Your task to perform on an android device: change alarm snooze length Image 0: 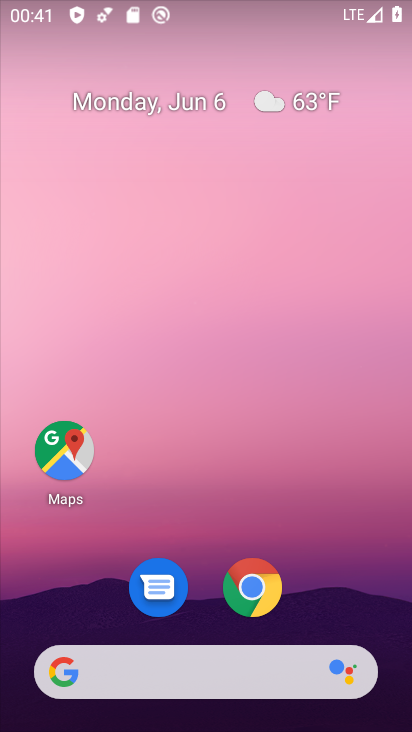
Step 0: drag from (344, 602) to (293, 149)
Your task to perform on an android device: change alarm snooze length Image 1: 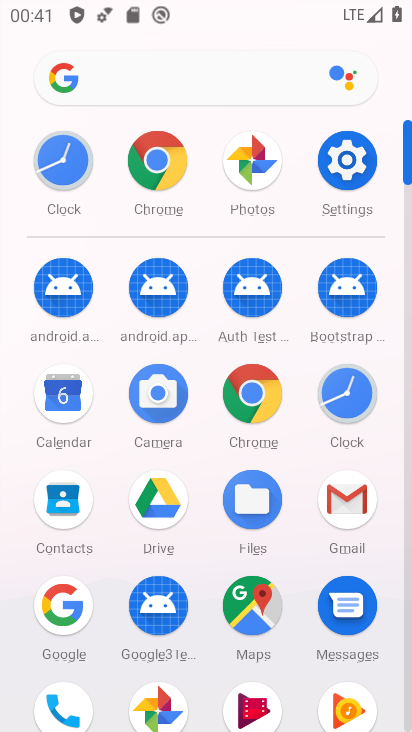
Step 1: click (338, 399)
Your task to perform on an android device: change alarm snooze length Image 2: 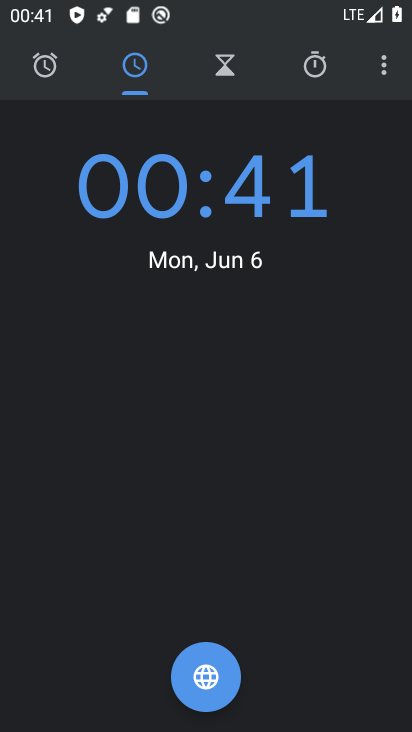
Step 2: click (385, 61)
Your task to perform on an android device: change alarm snooze length Image 3: 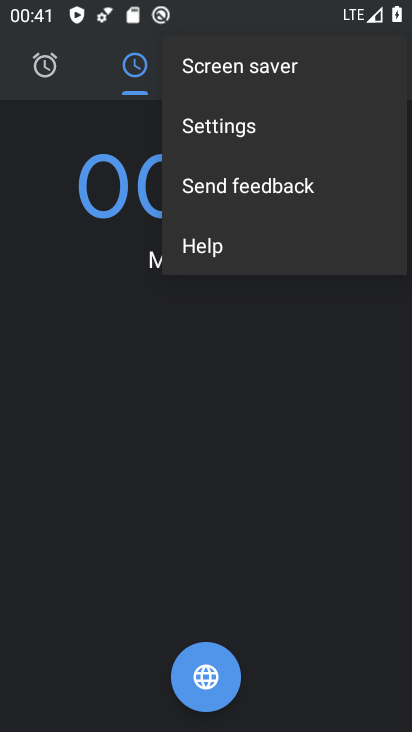
Step 3: click (332, 134)
Your task to perform on an android device: change alarm snooze length Image 4: 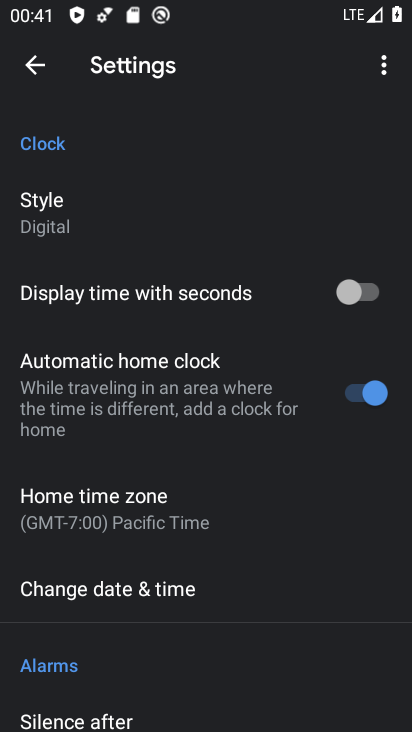
Step 4: drag from (255, 651) to (256, 165)
Your task to perform on an android device: change alarm snooze length Image 5: 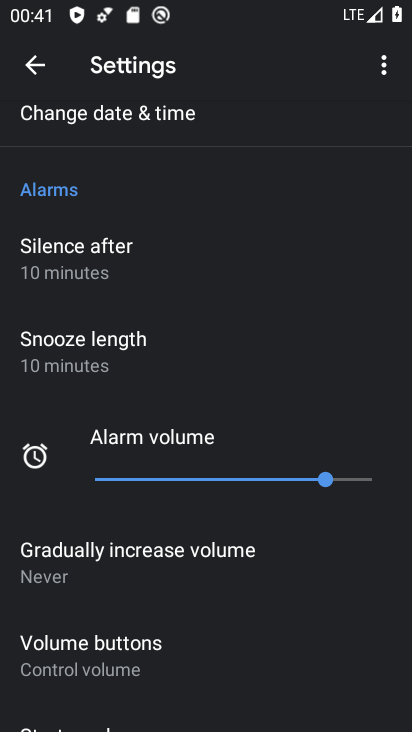
Step 5: click (245, 356)
Your task to perform on an android device: change alarm snooze length Image 6: 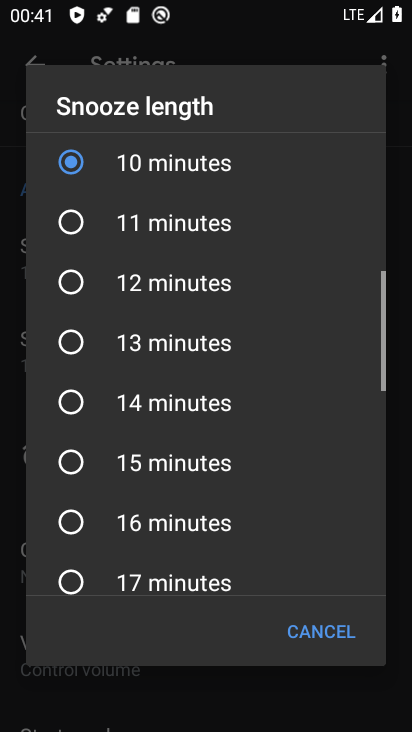
Step 6: click (219, 359)
Your task to perform on an android device: change alarm snooze length Image 7: 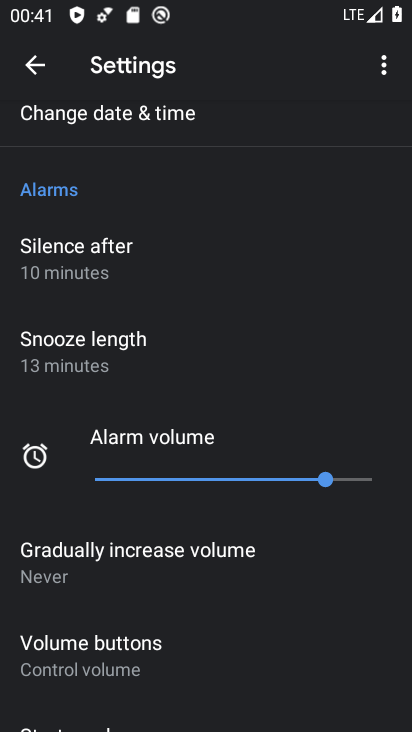
Step 7: task complete